Your task to perform on an android device: Search for sushi restaurants on Maps Image 0: 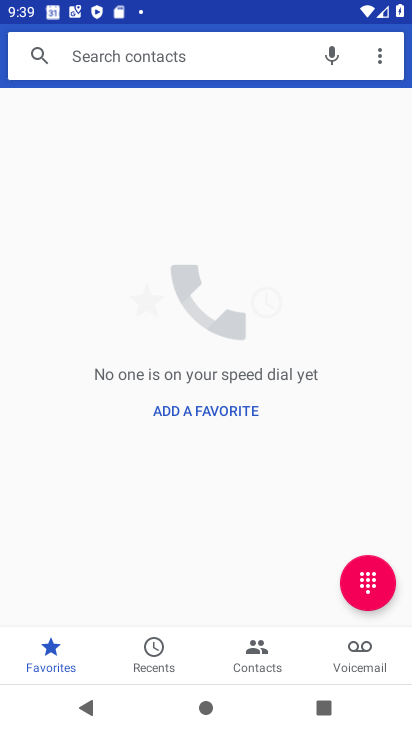
Step 0: press home button
Your task to perform on an android device: Search for sushi restaurants on Maps Image 1: 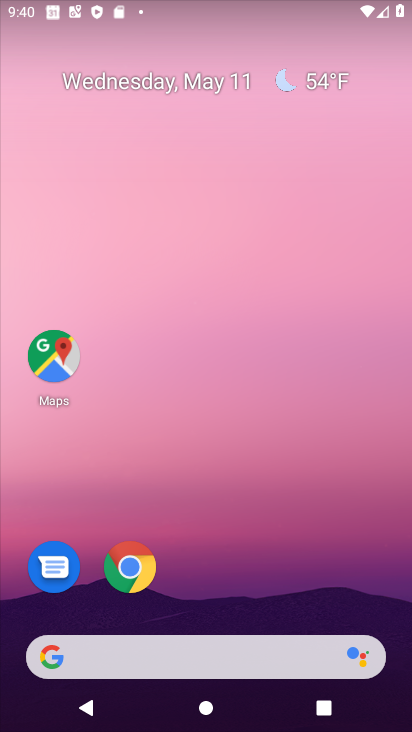
Step 1: click (63, 350)
Your task to perform on an android device: Search for sushi restaurants on Maps Image 2: 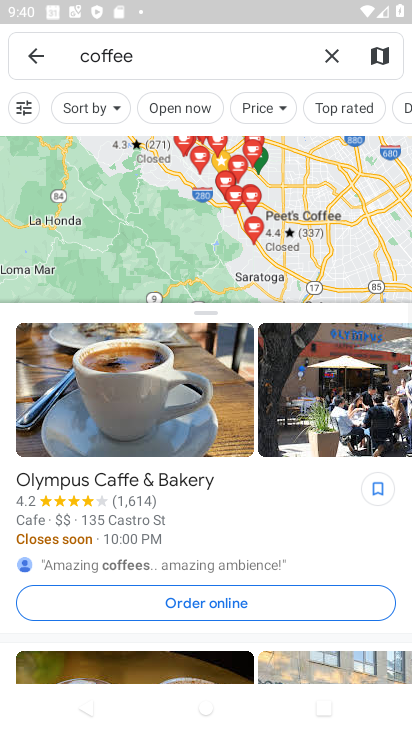
Step 2: click (329, 53)
Your task to perform on an android device: Search for sushi restaurants on Maps Image 3: 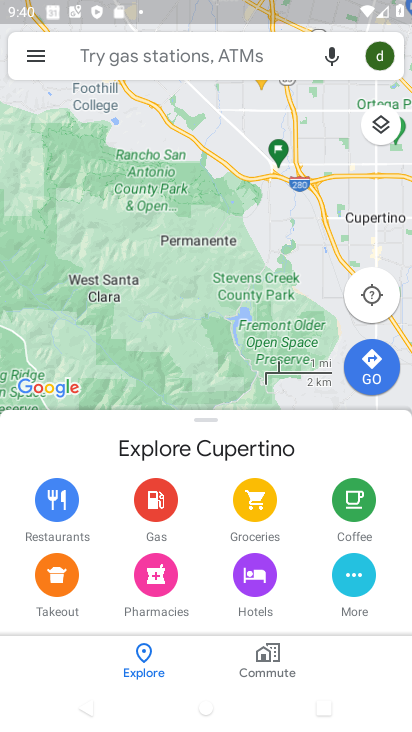
Step 3: click (145, 61)
Your task to perform on an android device: Search for sushi restaurants on Maps Image 4: 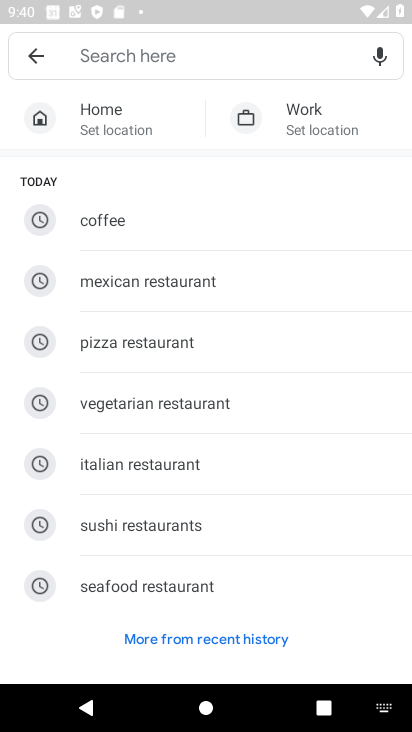
Step 4: type "sushi restaurants"
Your task to perform on an android device: Search for sushi restaurants on Maps Image 5: 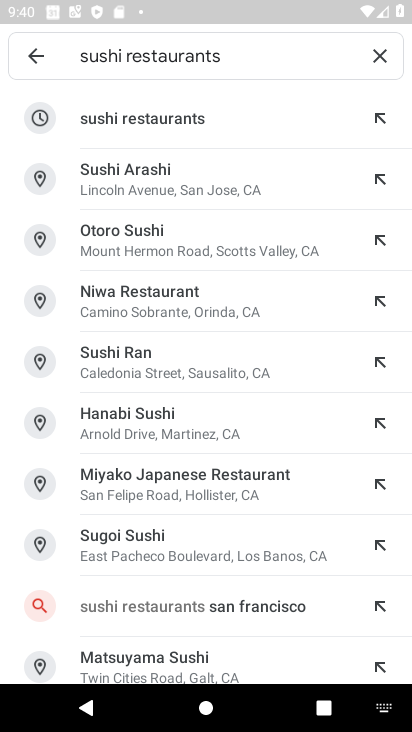
Step 5: click (193, 117)
Your task to perform on an android device: Search for sushi restaurants on Maps Image 6: 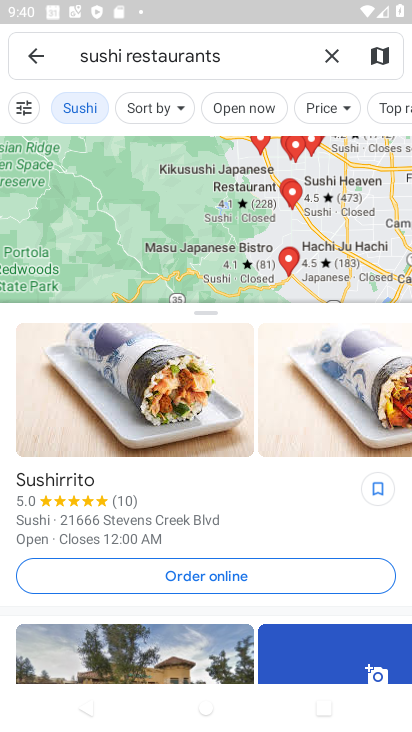
Step 6: task complete